Your task to perform on an android device: check storage Image 0: 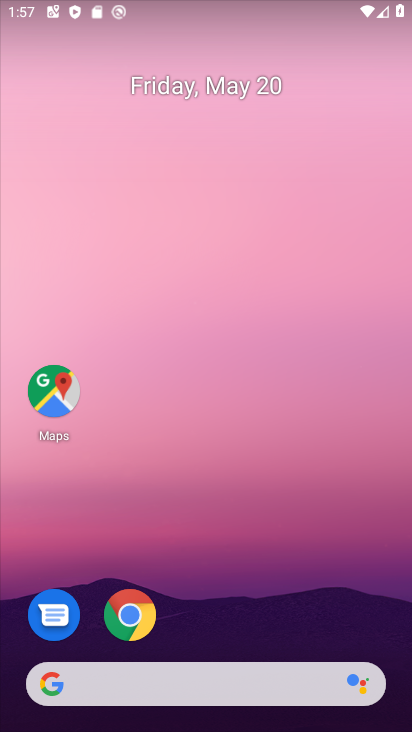
Step 0: drag from (223, 586) to (223, 309)
Your task to perform on an android device: check storage Image 1: 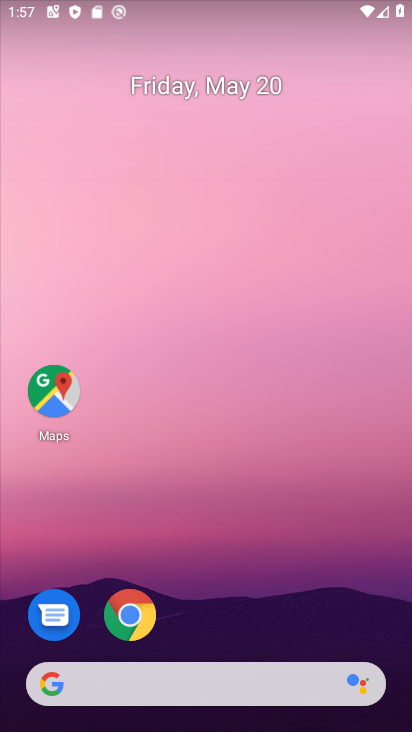
Step 1: drag from (241, 612) to (263, 271)
Your task to perform on an android device: check storage Image 2: 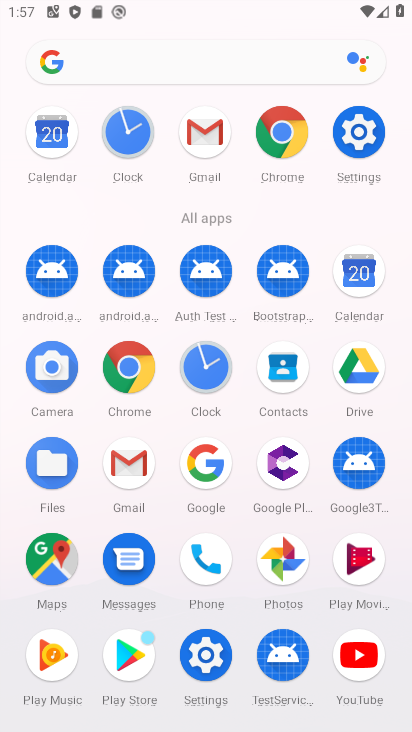
Step 2: click (352, 141)
Your task to perform on an android device: check storage Image 3: 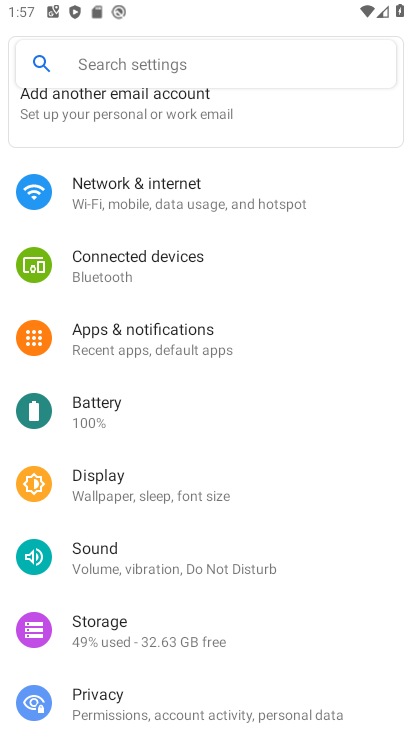
Step 3: click (115, 635)
Your task to perform on an android device: check storage Image 4: 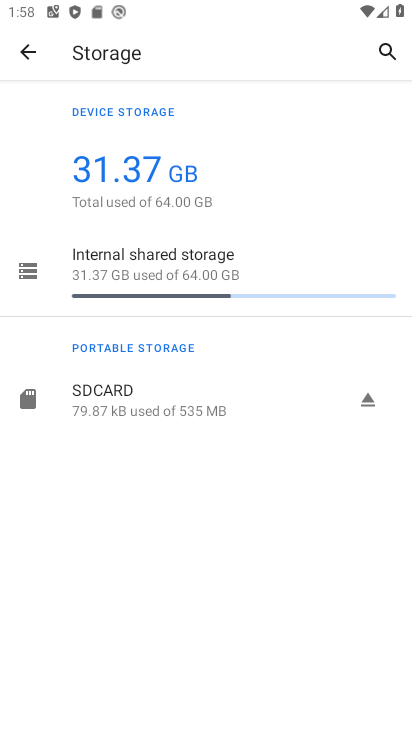
Step 4: task complete